Your task to perform on an android device: see creations saved in the google photos Image 0: 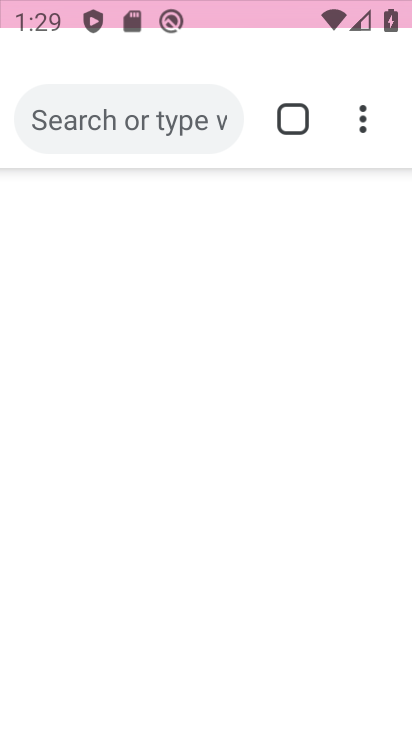
Step 0: click (311, 91)
Your task to perform on an android device: see creations saved in the google photos Image 1: 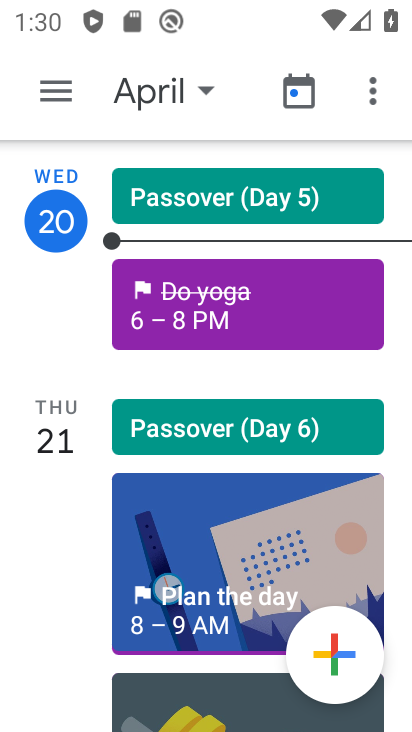
Step 1: press home button
Your task to perform on an android device: see creations saved in the google photos Image 2: 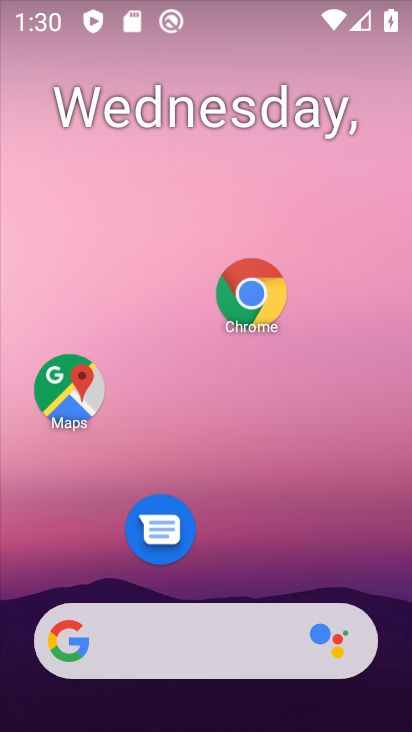
Step 2: drag from (220, 466) to (269, 301)
Your task to perform on an android device: see creations saved in the google photos Image 3: 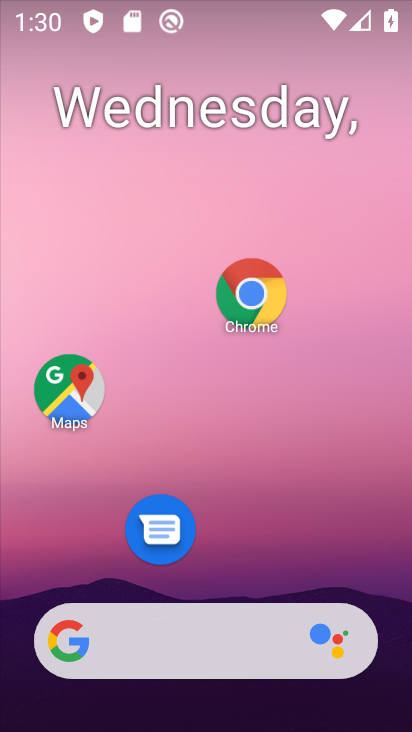
Step 3: drag from (226, 460) to (284, 14)
Your task to perform on an android device: see creations saved in the google photos Image 4: 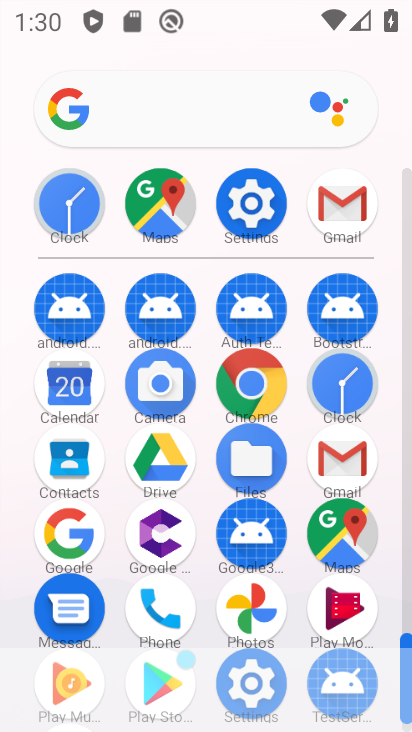
Step 4: click (254, 594)
Your task to perform on an android device: see creations saved in the google photos Image 5: 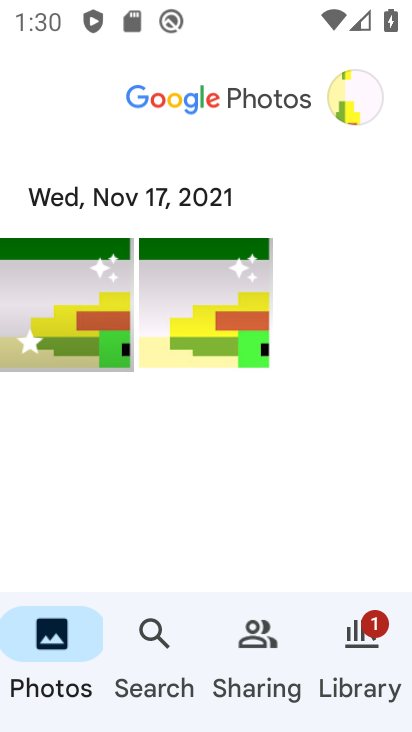
Step 5: click (353, 665)
Your task to perform on an android device: see creations saved in the google photos Image 6: 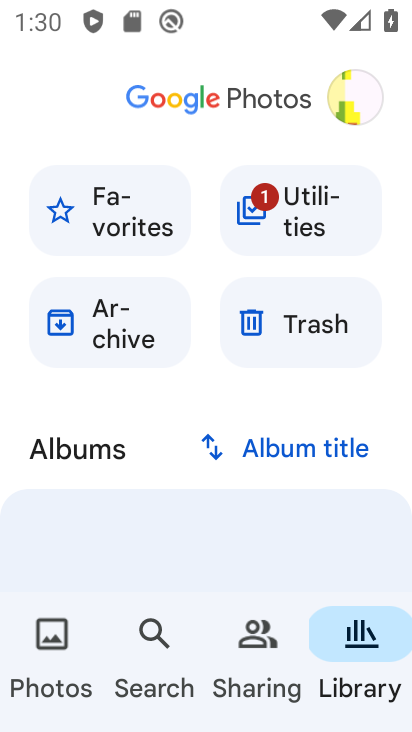
Step 6: click (359, 101)
Your task to perform on an android device: see creations saved in the google photos Image 7: 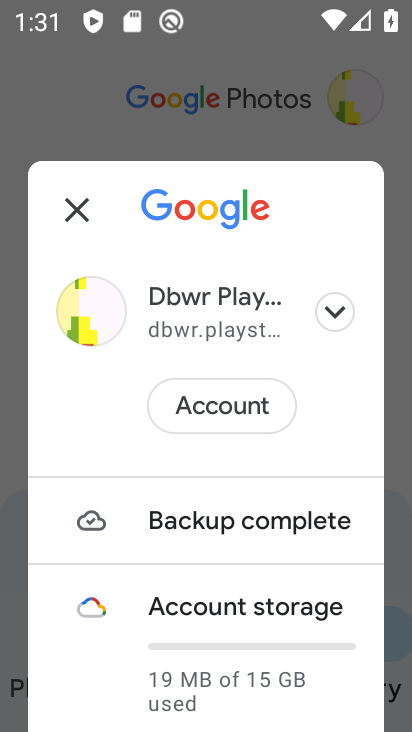
Step 7: task complete